Your task to perform on an android device: Go to wifi settings Image 0: 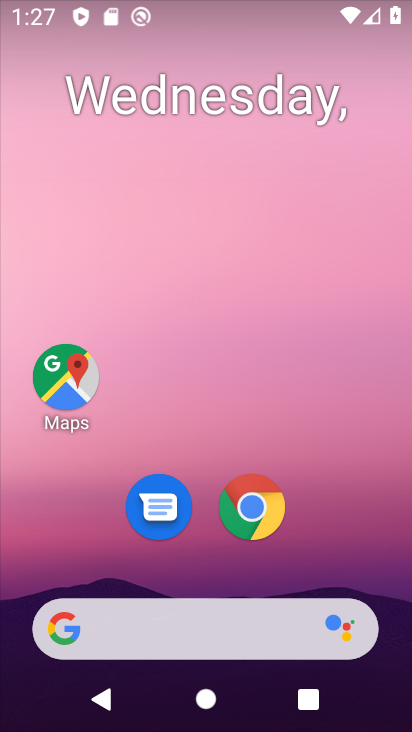
Step 0: drag from (408, 604) to (377, 173)
Your task to perform on an android device: Go to wifi settings Image 1: 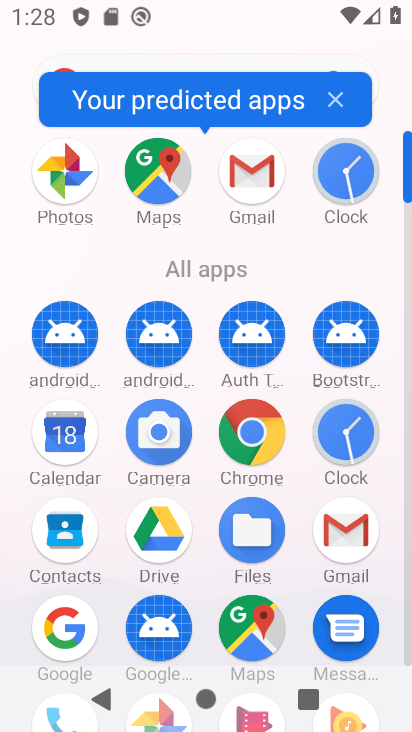
Step 1: drag from (406, 92) to (391, 0)
Your task to perform on an android device: Go to wifi settings Image 2: 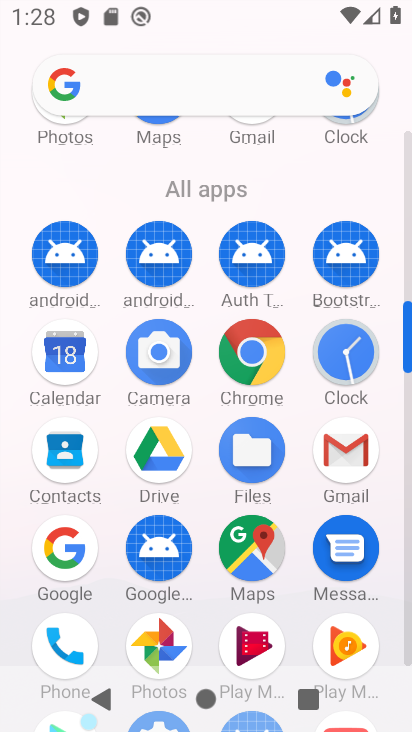
Step 2: drag from (410, 304) to (396, 230)
Your task to perform on an android device: Go to wifi settings Image 3: 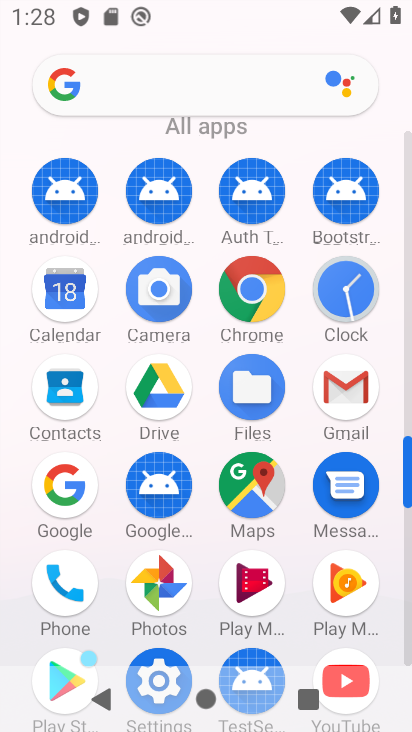
Step 3: click (149, 658)
Your task to perform on an android device: Go to wifi settings Image 4: 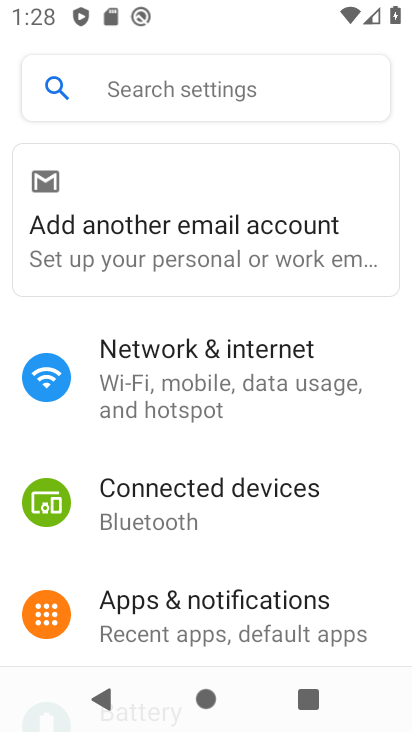
Step 4: click (160, 379)
Your task to perform on an android device: Go to wifi settings Image 5: 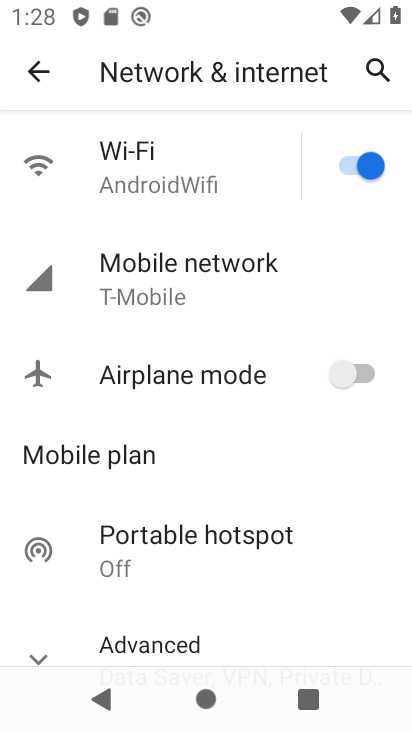
Step 5: click (141, 158)
Your task to perform on an android device: Go to wifi settings Image 6: 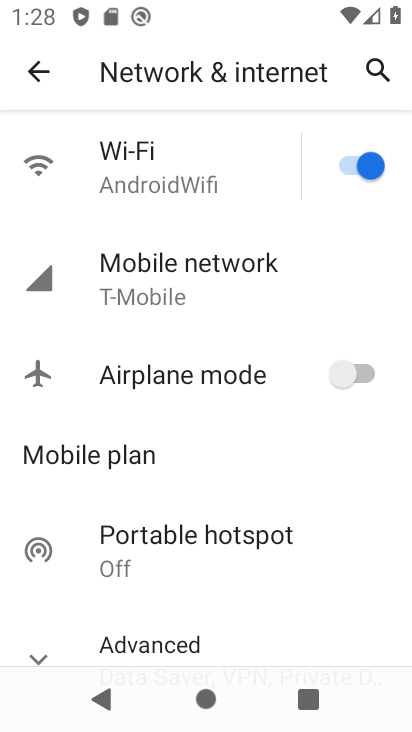
Step 6: click (148, 164)
Your task to perform on an android device: Go to wifi settings Image 7: 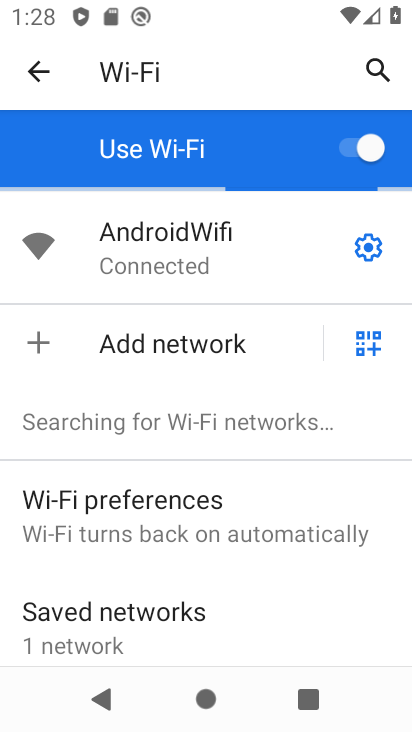
Step 7: click (366, 238)
Your task to perform on an android device: Go to wifi settings Image 8: 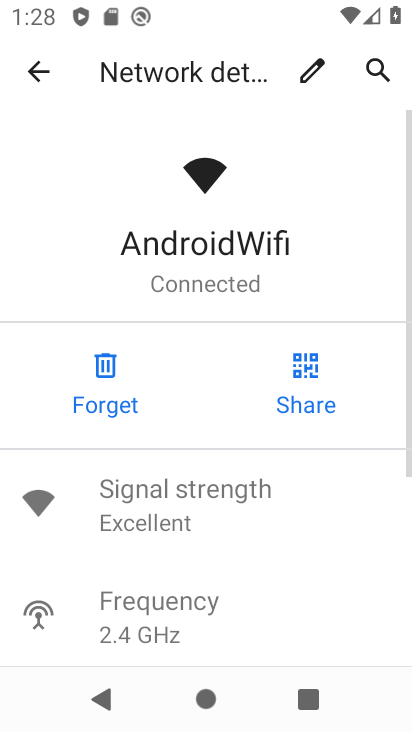
Step 8: task complete